Your task to perform on an android device: What is the news today? Image 0: 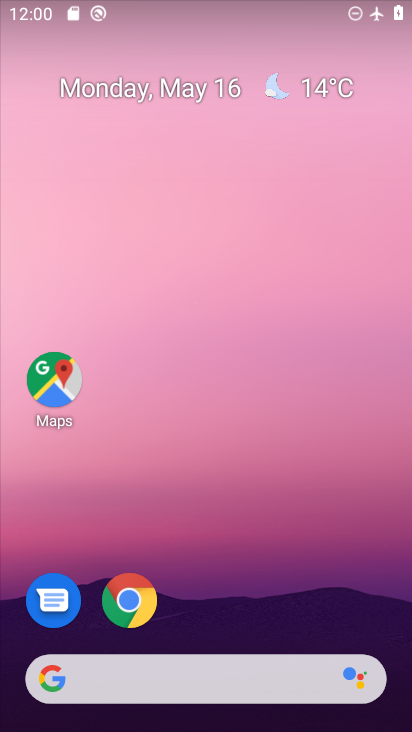
Step 0: drag from (11, 217) to (307, 274)
Your task to perform on an android device: What is the news today? Image 1: 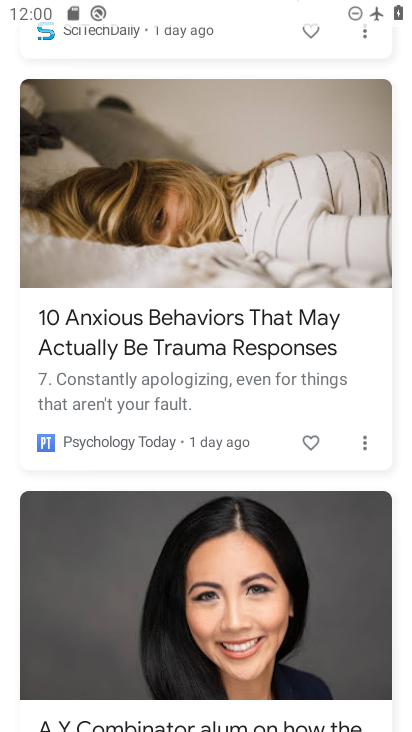
Step 1: task complete